Your task to perform on an android device: open wifi settings Image 0: 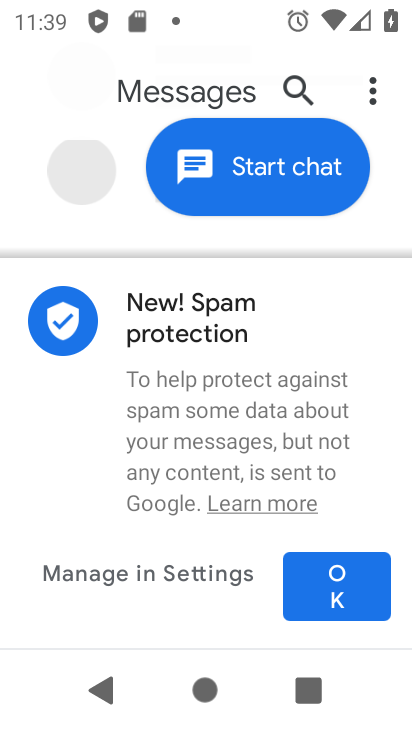
Step 0: press home button
Your task to perform on an android device: open wifi settings Image 1: 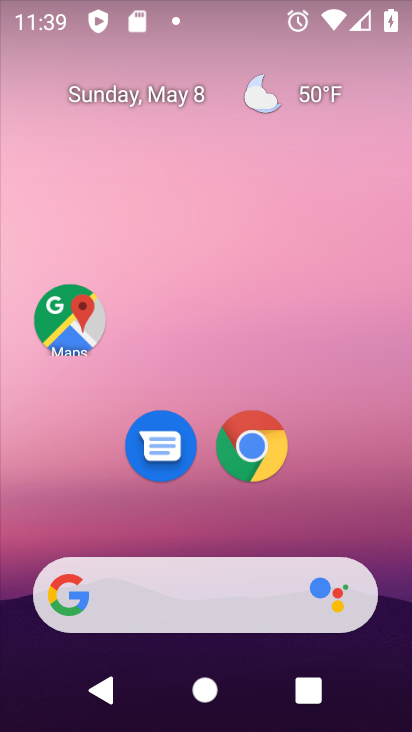
Step 1: drag from (307, 527) to (324, 22)
Your task to perform on an android device: open wifi settings Image 2: 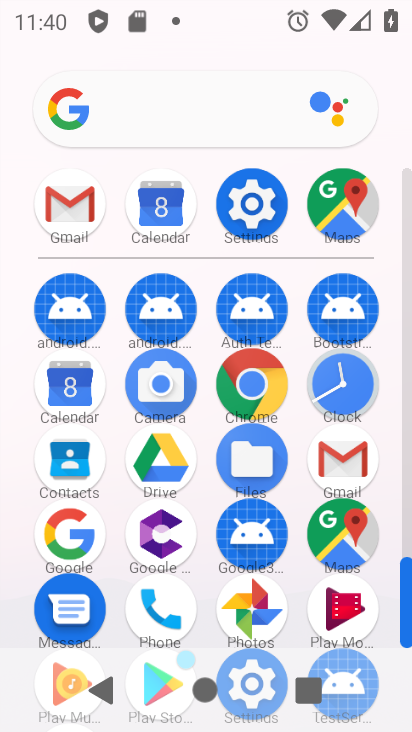
Step 2: click (267, 206)
Your task to perform on an android device: open wifi settings Image 3: 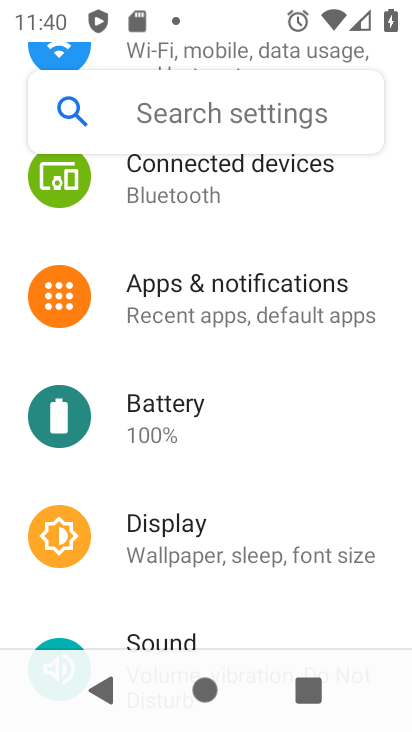
Step 3: drag from (260, 192) to (308, 510)
Your task to perform on an android device: open wifi settings Image 4: 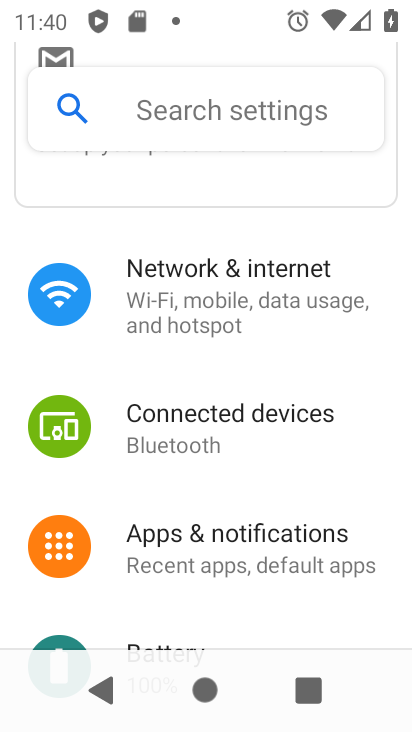
Step 4: click (259, 303)
Your task to perform on an android device: open wifi settings Image 5: 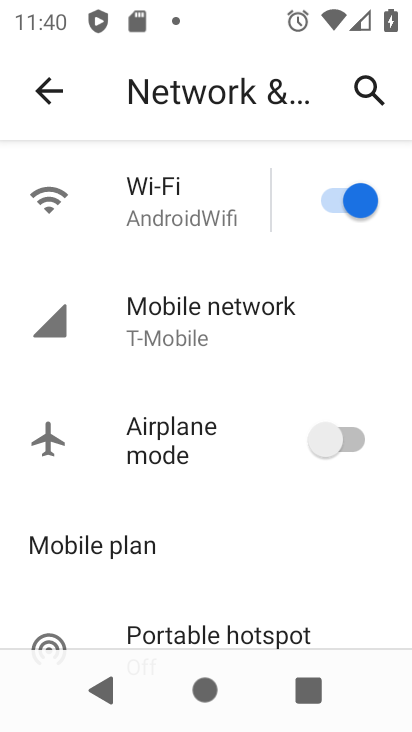
Step 5: click (172, 190)
Your task to perform on an android device: open wifi settings Image 6: 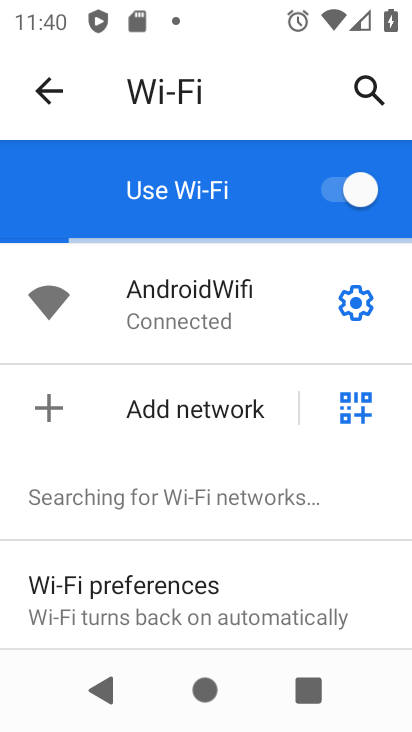
Step 6: task complete